Your task to perform on an android device: see tabs open on other devices in the chrome app Image 0: 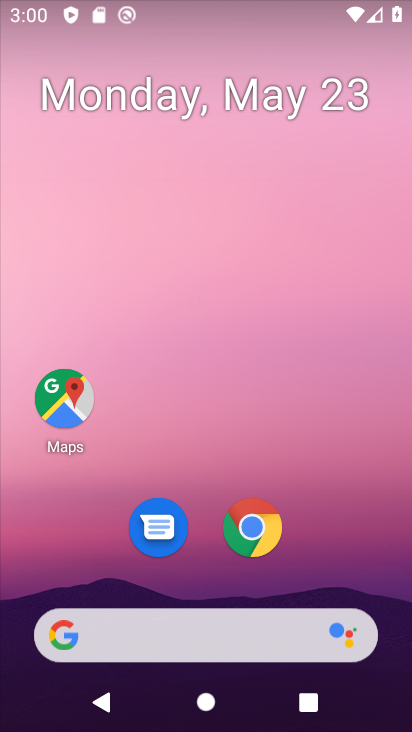
Step 0: click (279, 523)
Your task to perform on an android device: see tabs open on other devices in the chrome app Image 1: 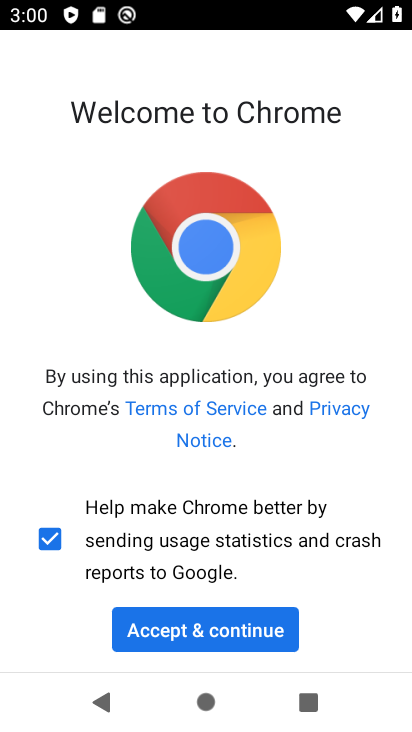
Step 1: click (250, 622)
Your task to perform on an android device: see tabs open on other devices in the chrome app Image 2: 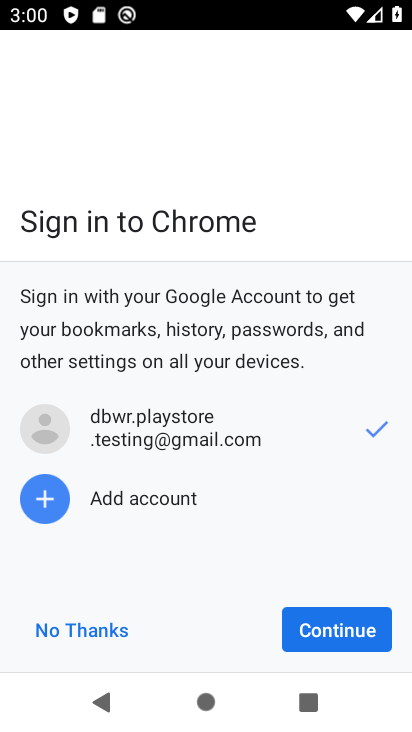
Step 2: click (330, 630)
Your task to perform on an android device: see tabs open on other devices in the chrome app Image 3: 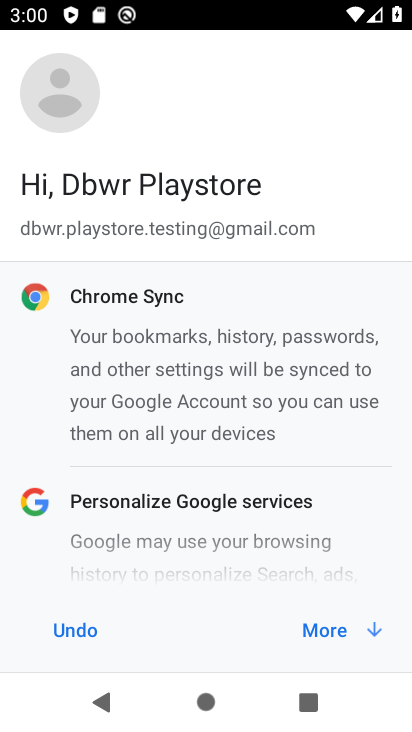
Step 3: click (330, 630)
Your task to perform on an android device: see tabs open on other devices in the chrome app Image 4: 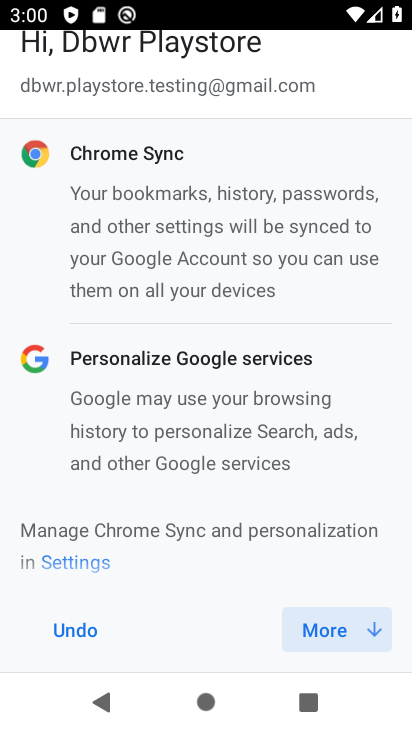
Step 4: click (330, 630)
Your task to perform on an android device: see tabs open on other devices in the chrome app Image 5: 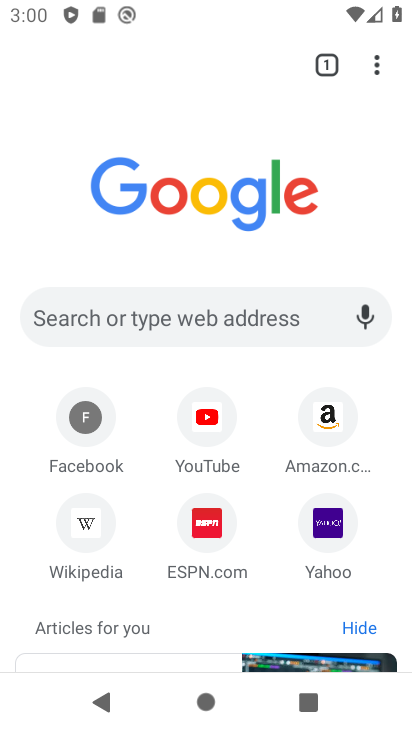
Step 5: click (386, 64)
Your task to perform on an android device: see tabs open on other devices in the chrome app Image 6: 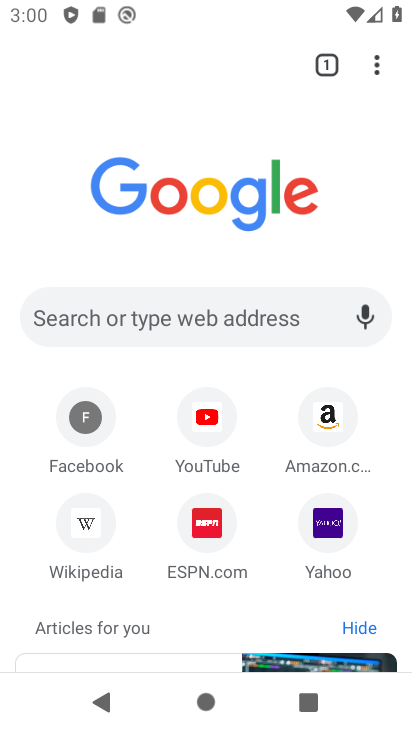
Step 6: click (373, 75)
Your task to perform on an android device: see tabs open on other devices in the chrome app Image 7: 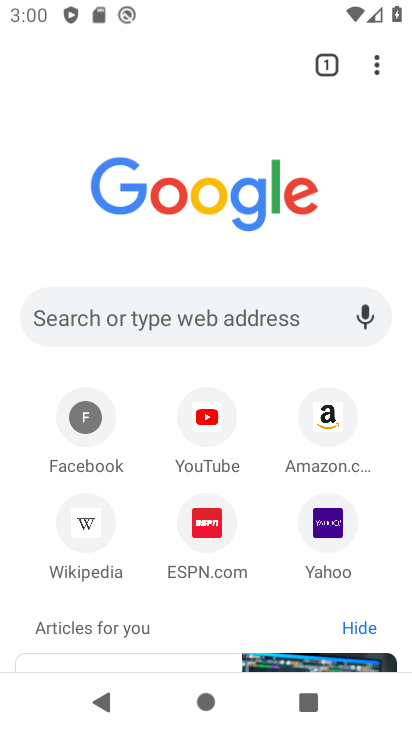
Step 7: click (384, 66)
Your task to perform on an android device: see tabs open on other devices in the chrome app Image 8: 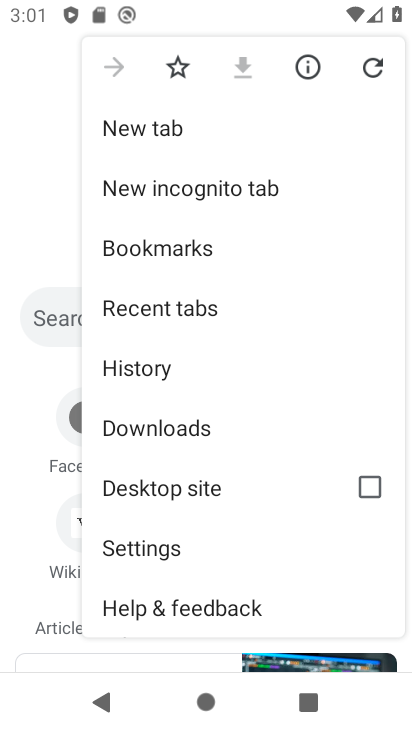
Step 8: click (237, 308)
Your task to perform on an android device: see tabs open on other devices in the chrome app Image 9: 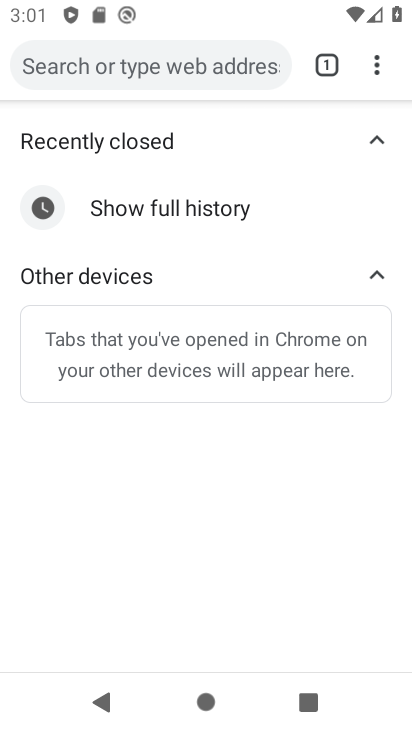
Step 9: click (223, 196)
Your task to perform on an android device: see tabs open on other devices in the chrome app Image 10: 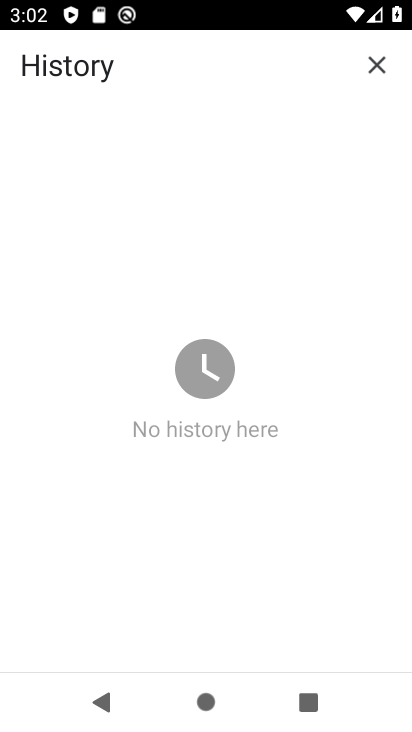
Step 10: task complete